Your task to perform on an android device: turn off translation in the chrome app Image 0: 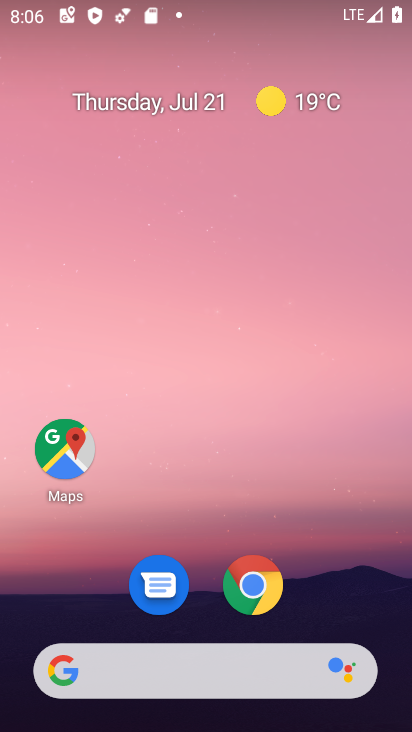
Step 0: click (258, 602)
Your task to perform on an android device: turn off translation in the chrome app Image 1: 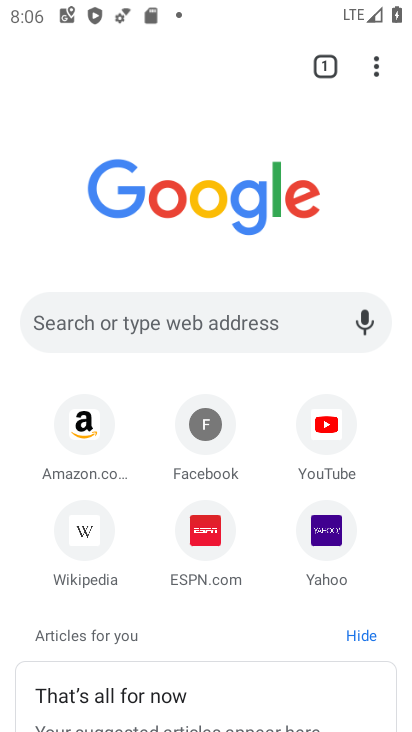
Step 1: click (376, 71)
Your task to perform on an android device: turn off translation in the chrome app Image 2: 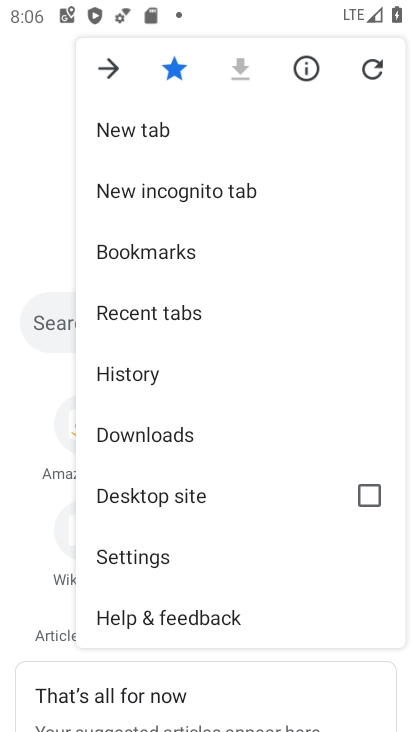
Step 2: click (159, 553)
Your task to perform on an android device: turn off translation in the chrome app Image 3: 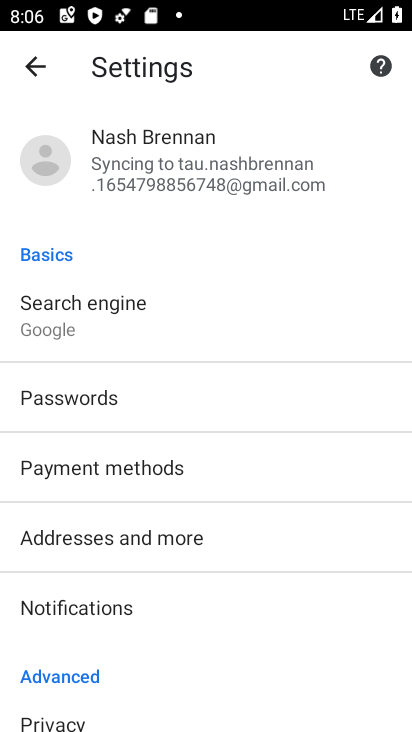
Step 3: drag from (249, 629) to (267, 234)
Your task to perform on an android device: turn off translation in the chrome app Image 4: 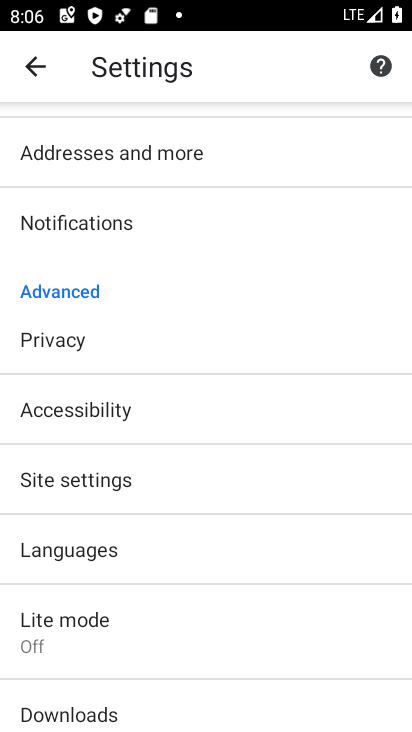
Step 4: click (202, 545)
Your task to perform on an android device: turn off translation in the chrome app Image 5: 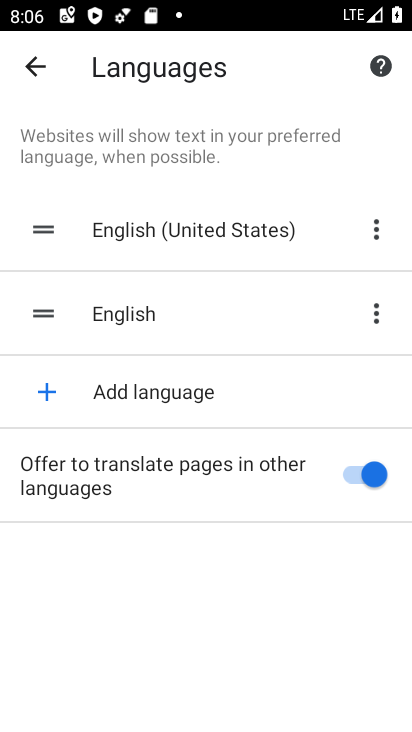
Step 5: click (362, 464)
Your task to perform on an android device: turn off translation in the chrome app Image 6: 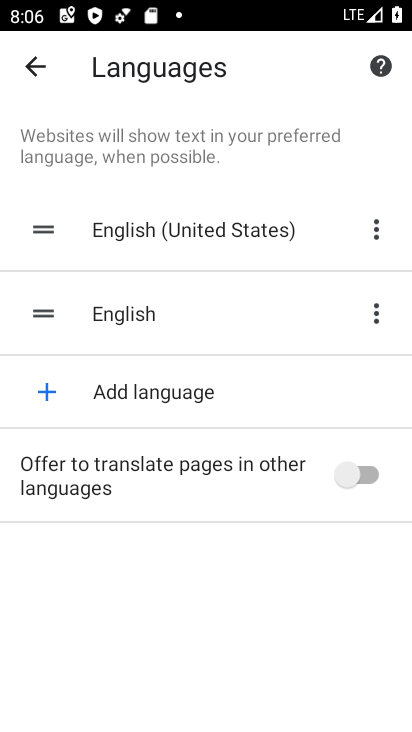
Step 6: task complete